Your task to perform on an android device: change the clock display to show seconds Image 0: 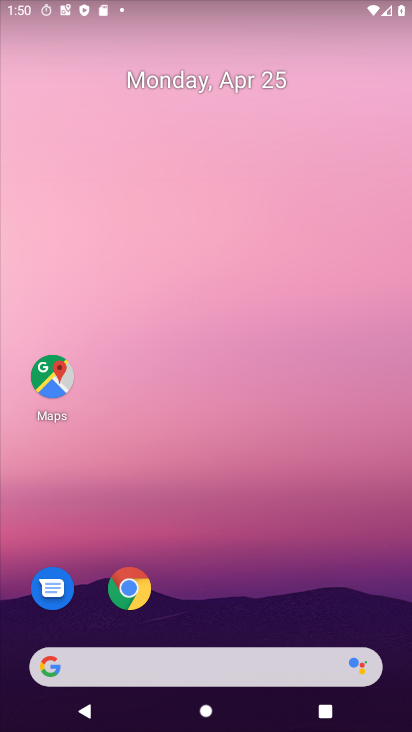
Step 0: drag from (275, 599) to (301, 73)
Your task to perform on an android device: change the clock display to show seconds Image 1: 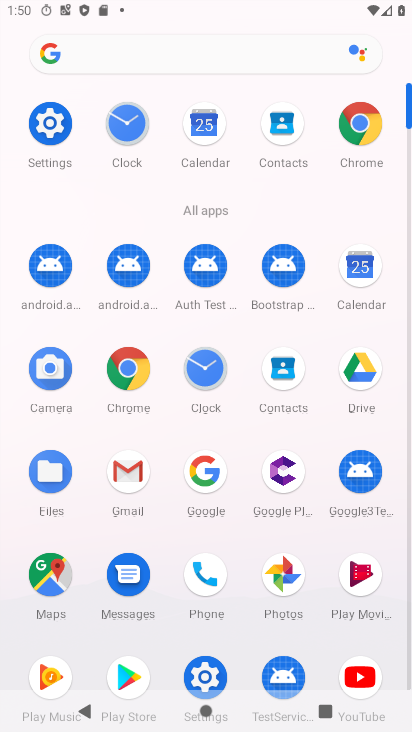
Step 1: click (212, 373)
Your task to perform on an android device: change the clock display to show seconds Image 2: 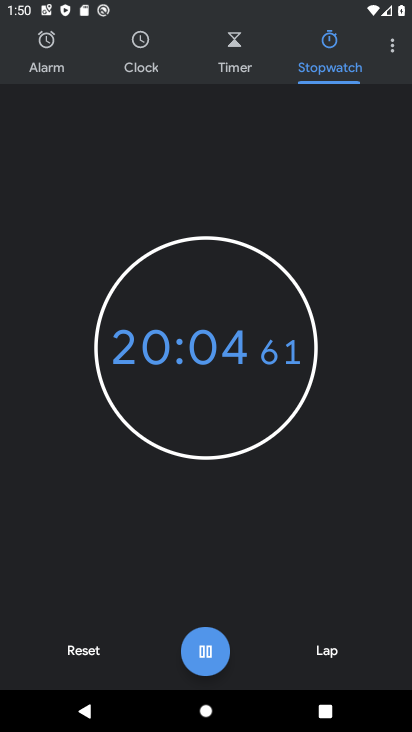
Step 2: click (393, 51)
Your task to perform on an android device: change the clock display to show seconds Image 3: 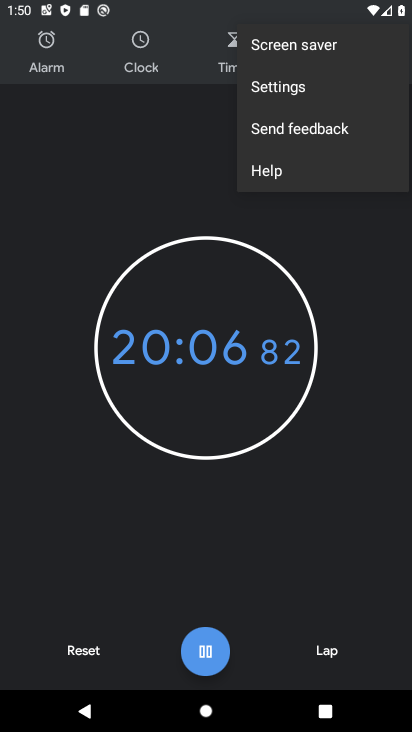
Step 3: click (315, 88)
Your task to perform on an android device: change the clock display to show seconds Image 4: 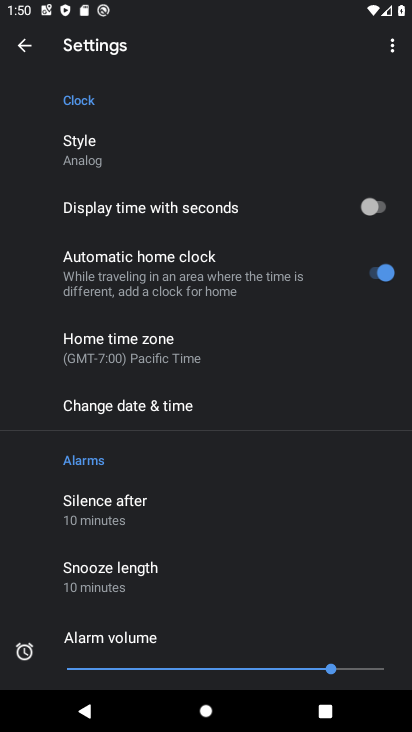
Step 4: click (369, 207)
Your task to perform on an android device: change the clock display to show seconds Image 5: 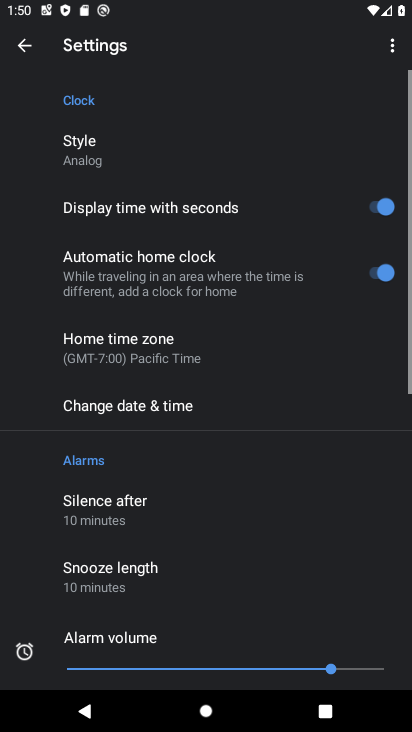
Step 5: task complete